Your task to perform on an android device: Open Youtube and go to "Your channel" Image 0: 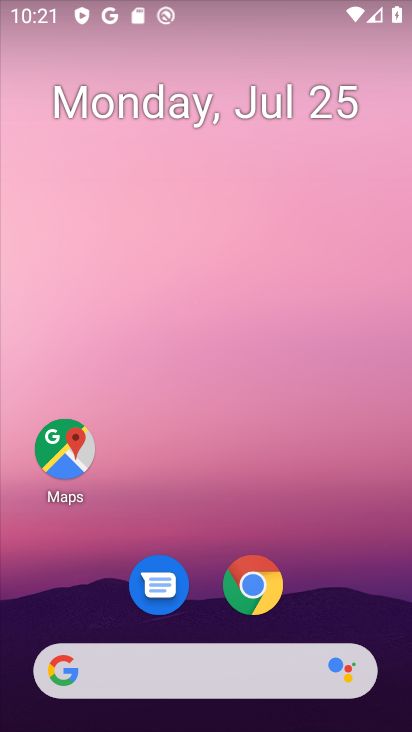
Step 0: drag from (340, 564) to (318, 89)
Your task to perform on an android device: Open Youtube and go to "Your channel" Image 1: 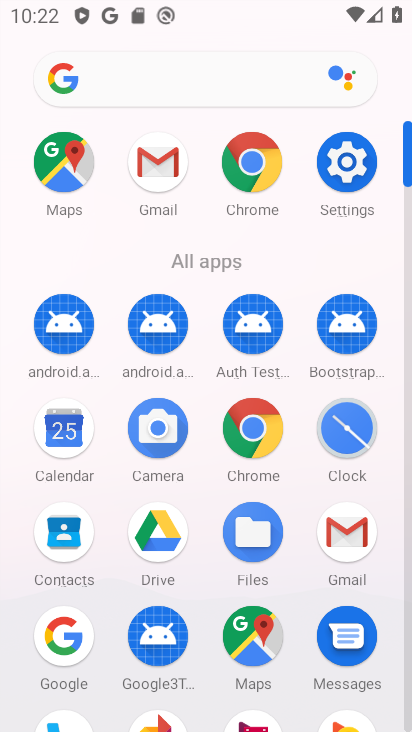
Step 1: drag from (218, 483) to (218, 55)
Your task to perform on an android device: Open Youtube and go to "Your channel" Image 2: 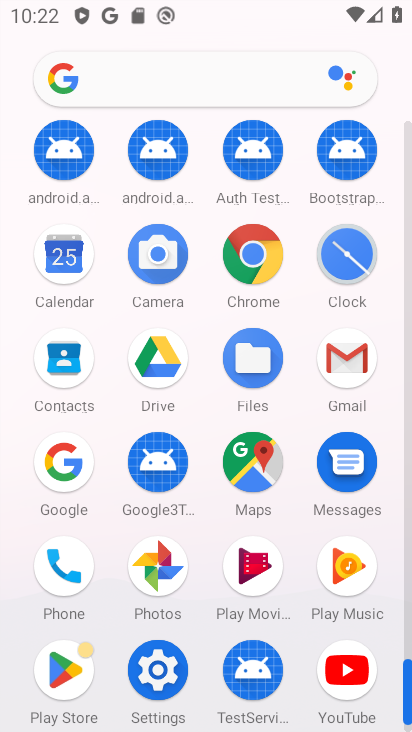
Step 2: click (360, 666)
Your task to perform on an android device: Open Youtube and go to "Your channel" Image 3: 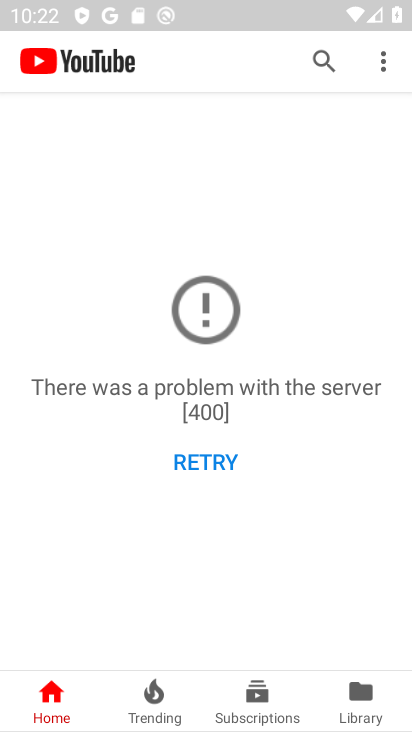
Step 3: click (382, 65)
Your task to perform on an android device: Open Youtube and go to "Your channel" Image 4: 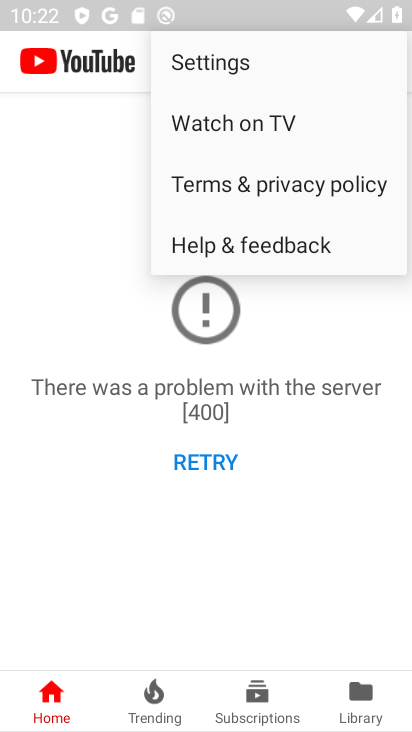
Step 4: click (332, 488)
Your task to perform on an android device: Open Youtube and go to "Your channel" Image 5: 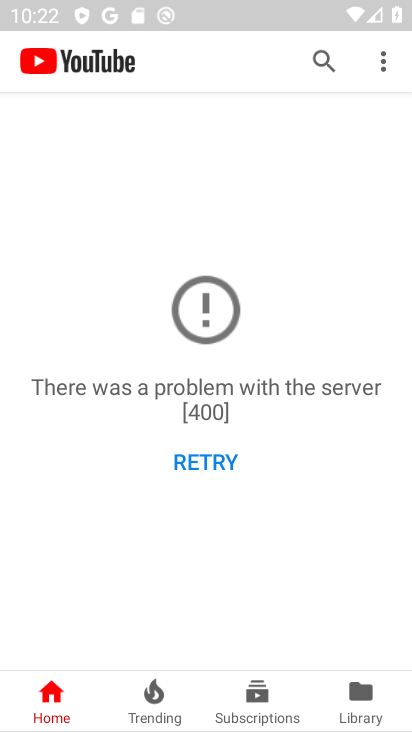
Step 5: click (382, 70)
Your task to perform on an android device: Open Youtube and go to "Your channel" Image 6: 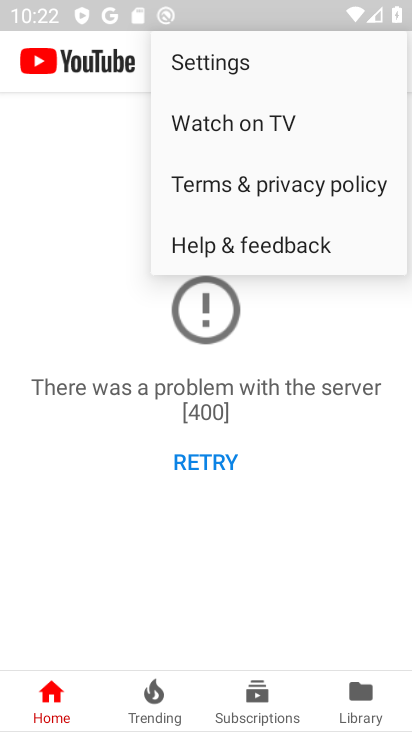
Step 6: click (298, 56)
Your task to perform on an android device: Open Youtube and go to "Your channel" Image 7: 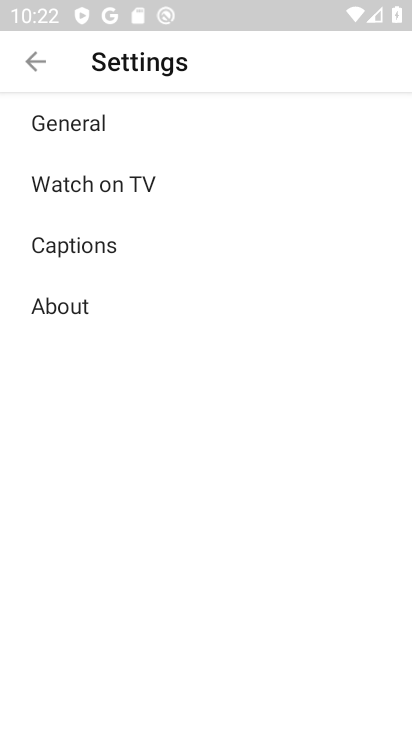
Step 7: click (39, 50)
Your task to perform on an android device: Open Youtube and go to "Your channel" Image 8: 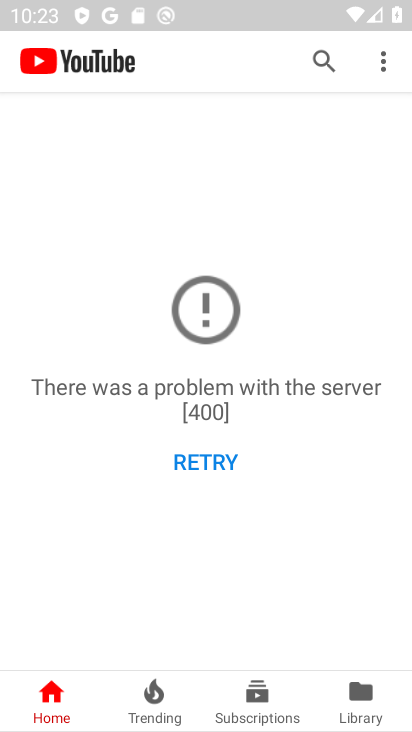
Step 8: click (255, 695)
Your task to perform on an android device: Open Youtube and go to "Your channel" Image 9: 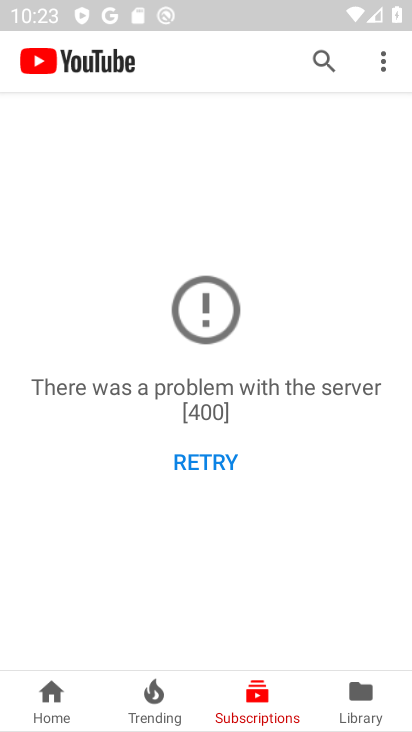
Step 9: click (379, 72)
Your task to perform on an android device: Open Youtube and go to "Your channel" Image 10: 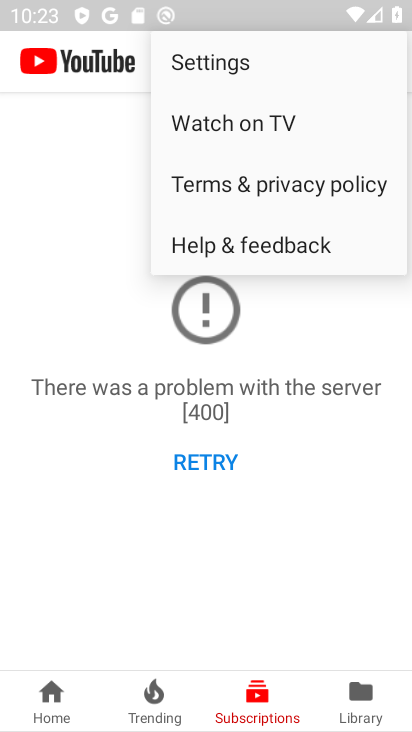
Step 10: click (291, 476)
Your task to perform on an android device: Open Youtube and go to "Your channel" Image 11: 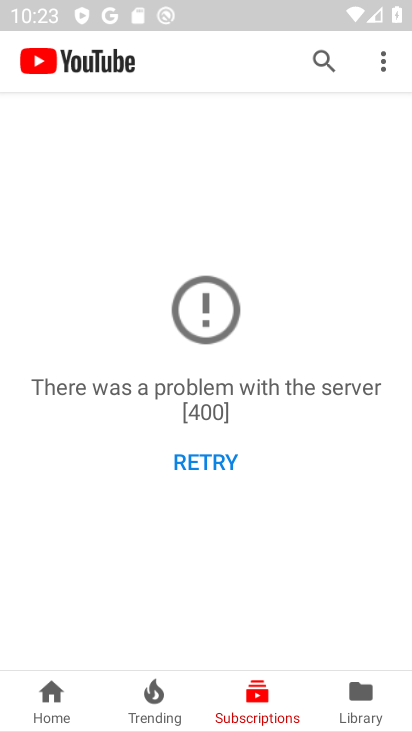
Step 11: click (359, 700)
Your task to perform on an android device: Open Youtube and go to "Your channel" Image 12: 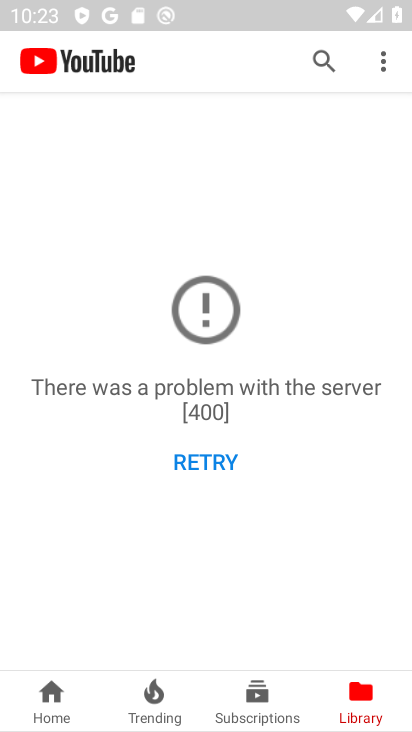
Step 12: click (321, 62)
Your task to perform on an android device: Open Youtube and go to "Your channel" Image 13: 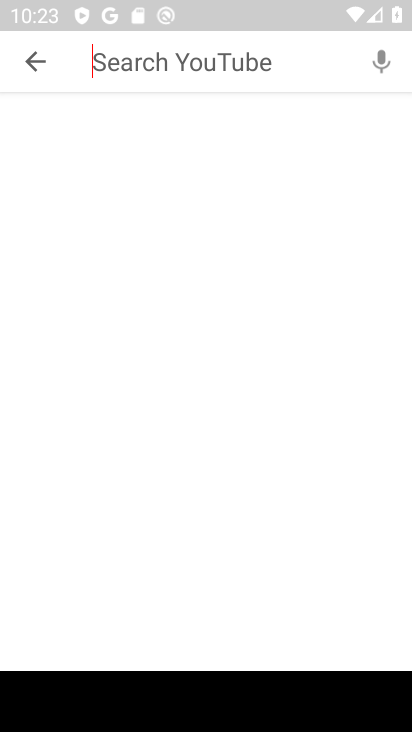
Step 13: type "your channel"
Your task to perform on an android device: Open Youtube and go to "Your channel" Image 14: 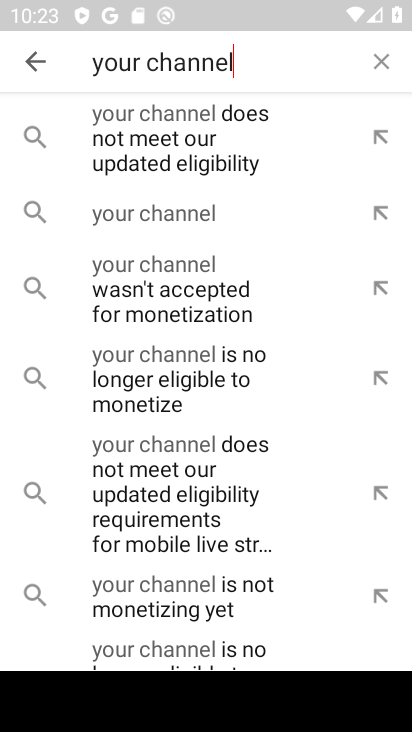
Step 14: click (201, 210)
Your task to perform on an android device: Open Youtube and go to "Your channel" Image 15: 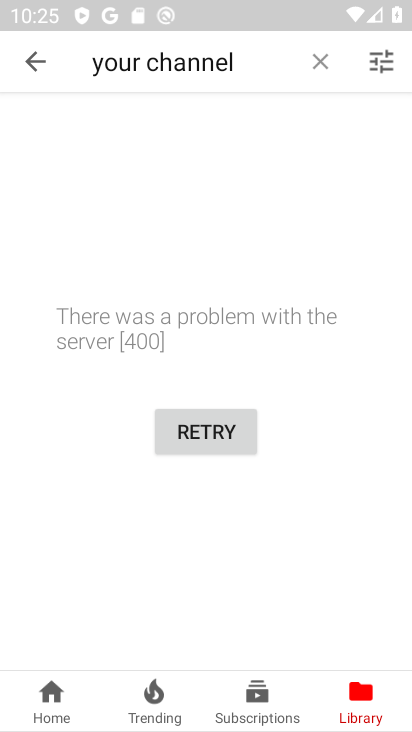
Step 15: task complete